Your task to perform on an android device: turn notification dots on Image 0: 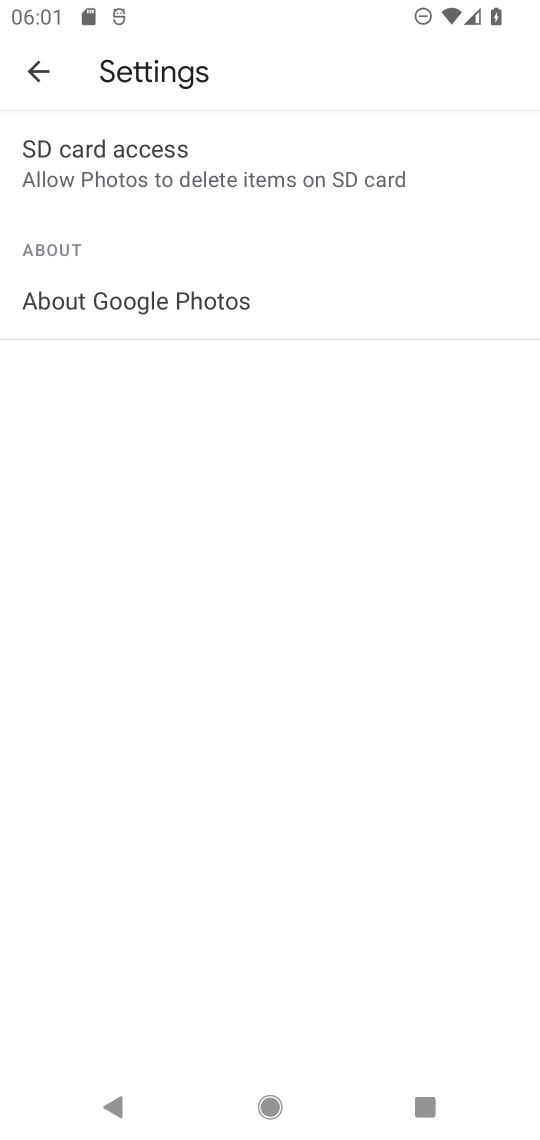
Step 0: press home button
Your task to perform on an android device: turn notification dots on Image 1: 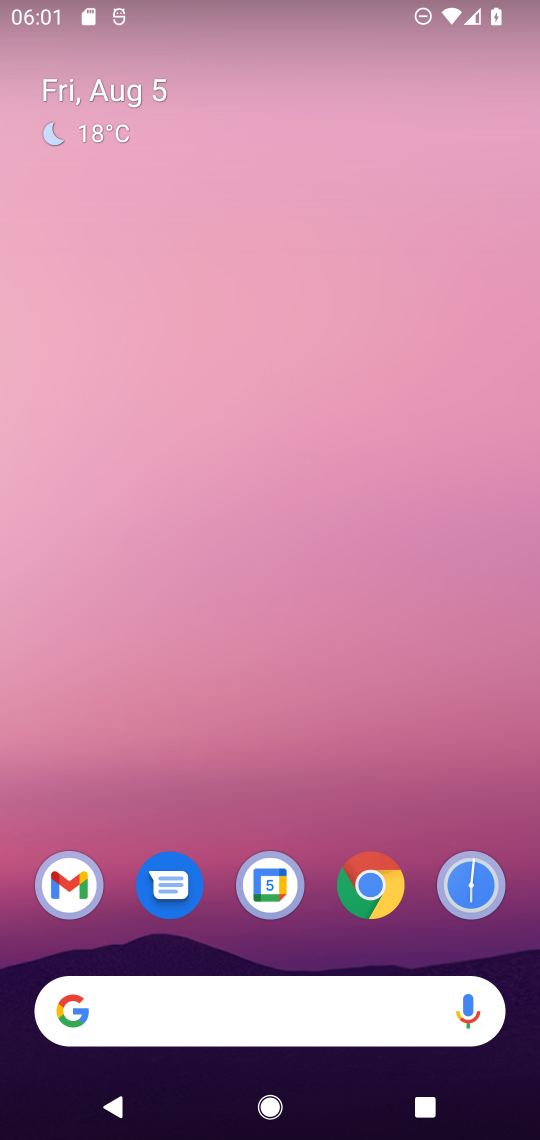
Step 1: drag from (301, 964) to (321, 78)
Your task to perform on an android device: turn notification dots on Image 2: 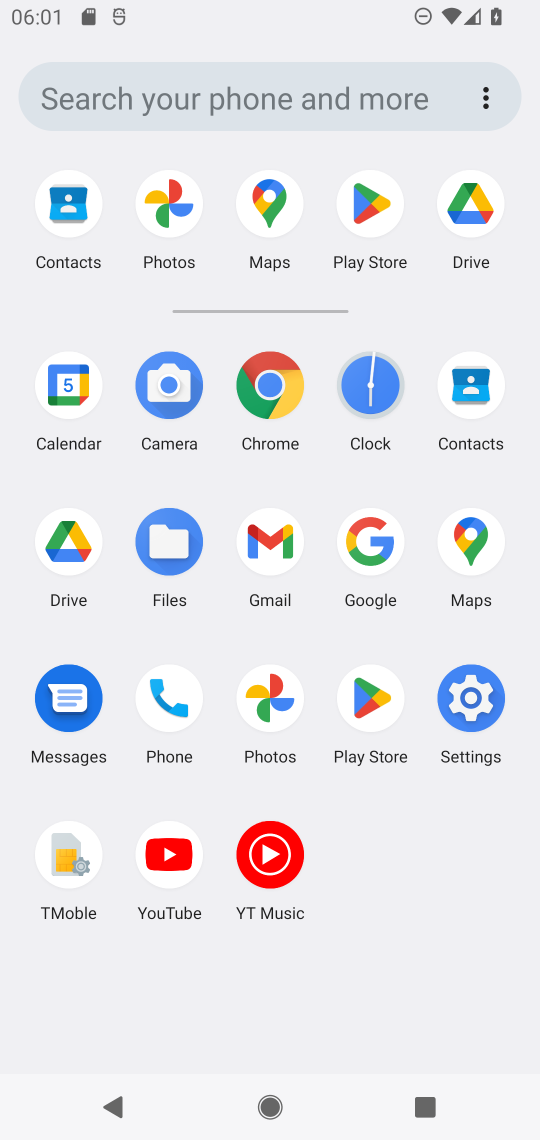
Step 2: click (466, 696)
Your task to perform on an android device: turn notification dots on Image 3: 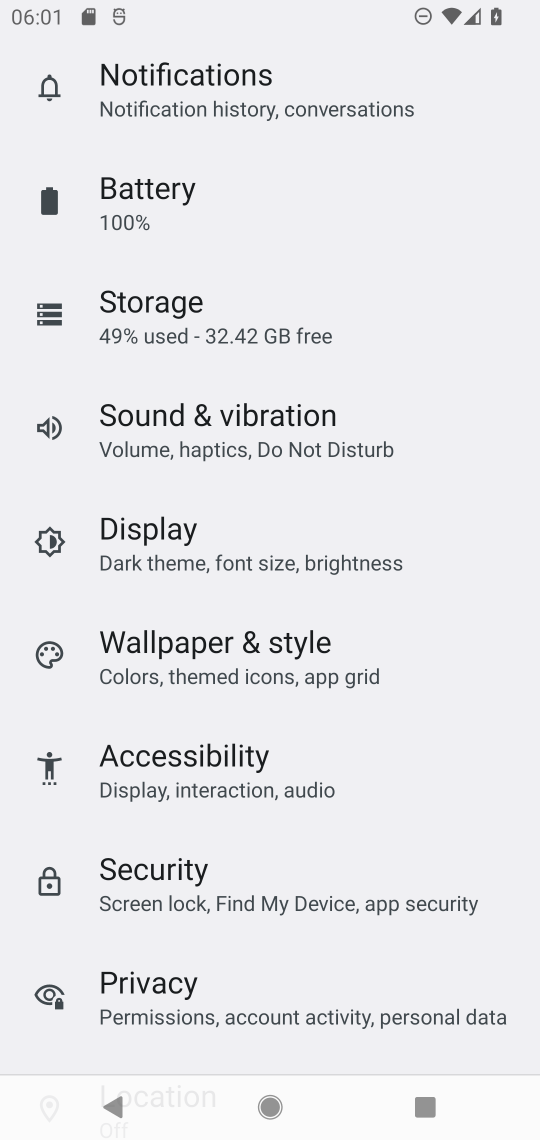
Step 3: click (166, 96)
Your task to perform on an android device: turn notification dots on Image 4: 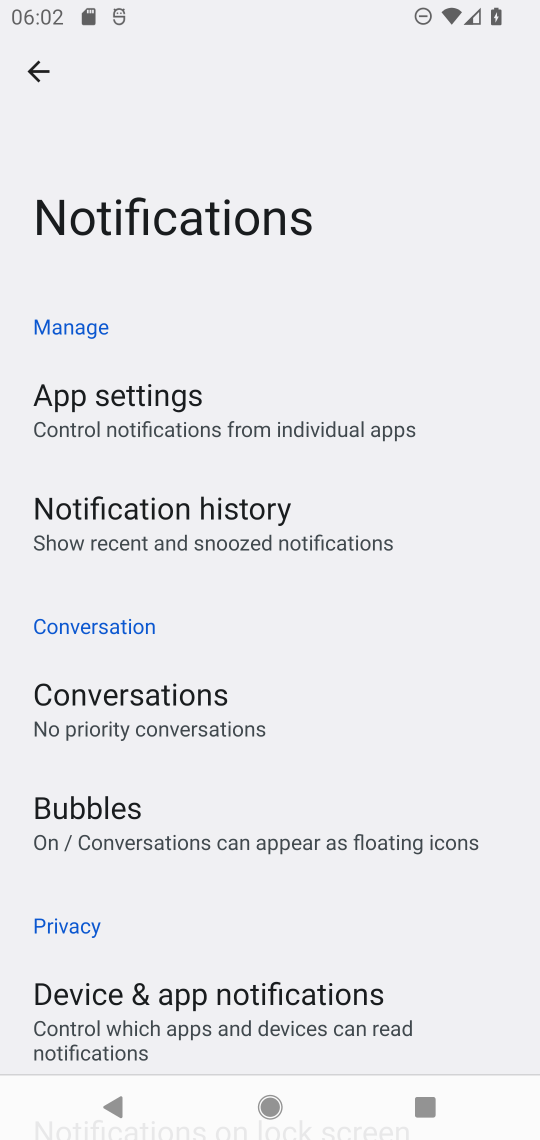
Step 4: drag from (190, 864) to (183, 632)
Your task to perform on an android device: turn notification dots on Image 5: 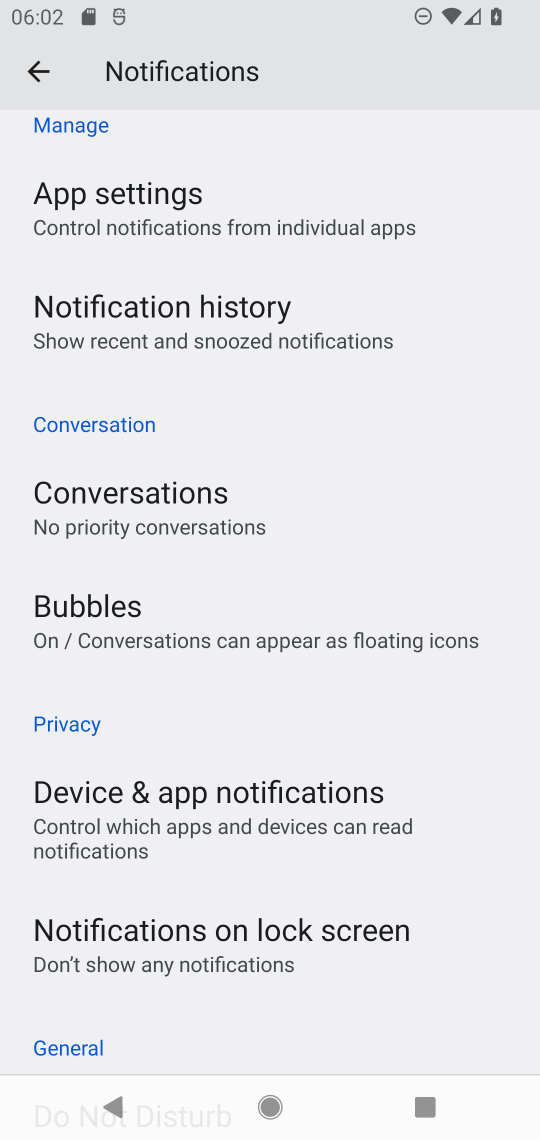
Step 5: drag from (128, 892) to (98, 396)
Your task to perform on an android device: turn notification dots on Image 6: 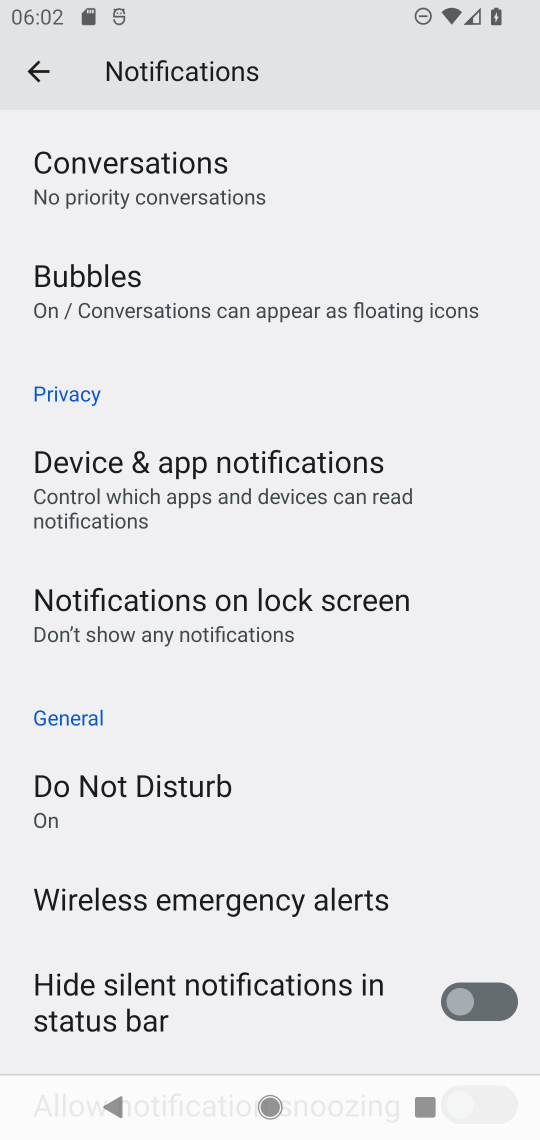
Step 6: drag from (239, 998) to (220, 626)
Your task to perform on an android device: turn notification dots on Image 7: 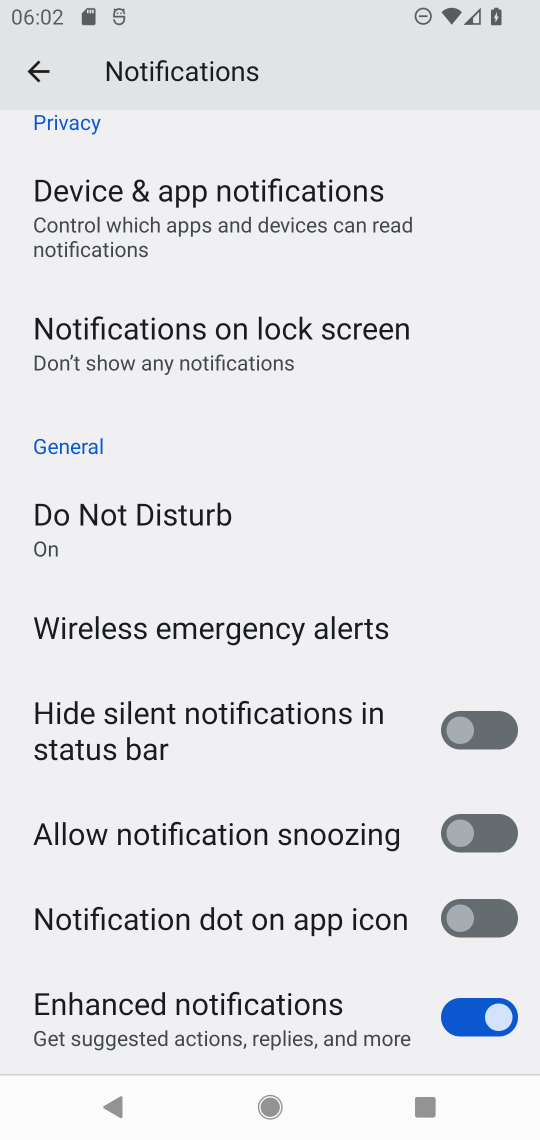
Step 7: click (480, 924)
Your task to perform on an android device: turn notification dots on Image 8: 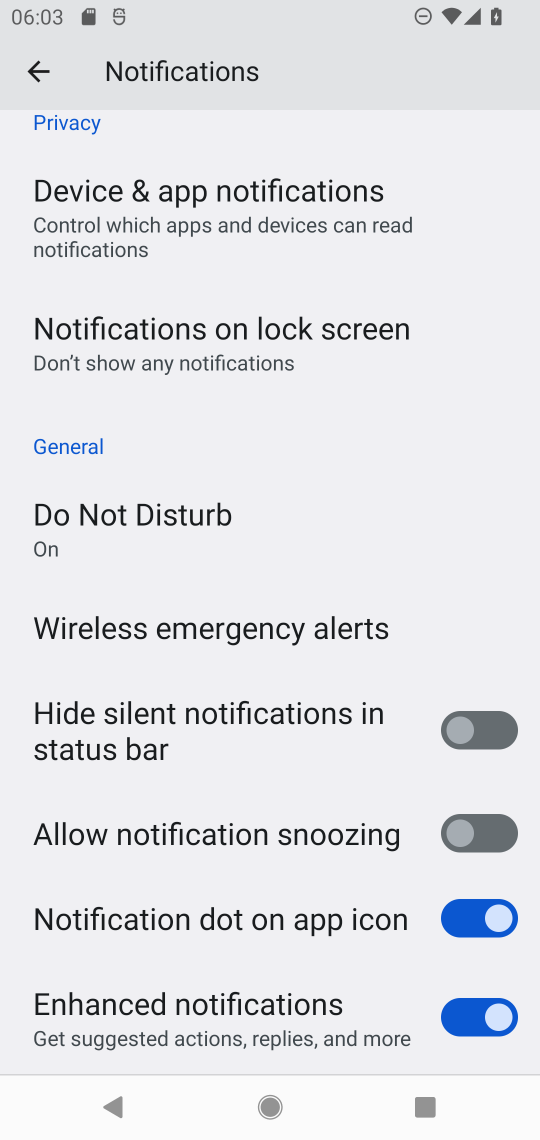
Step 8: task complete